Your task to perform on an android device: toggle wifi Image 0: 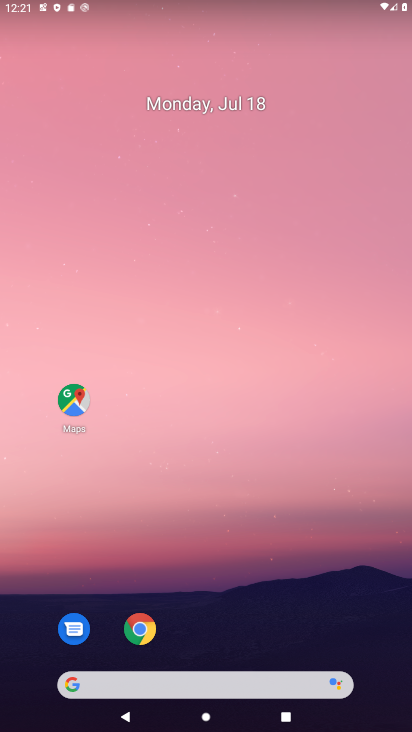
Step 0: press home button
Your task to perform on an android device: toggle wifi Image 1: 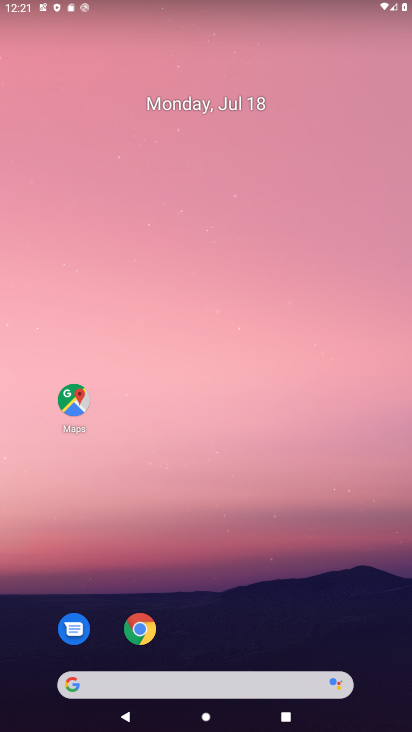
Step 1: drag from (231, 8) to (232, 544)
Your task to perform on an android device: toggle wifi Image 2: 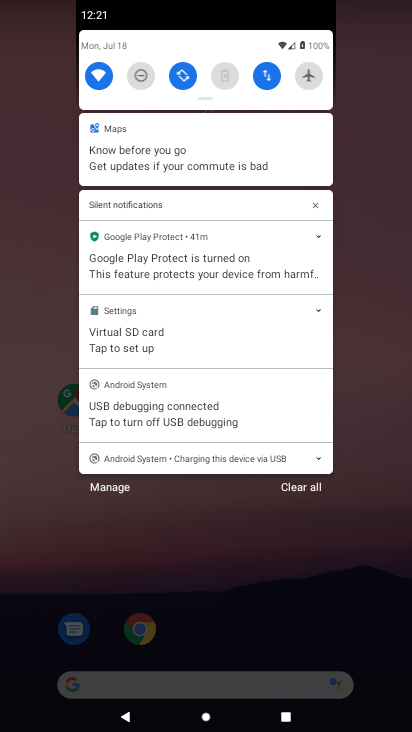
Step 2: click (98, 78)
Your task to perform on an android device: toggle wifi Image 3: 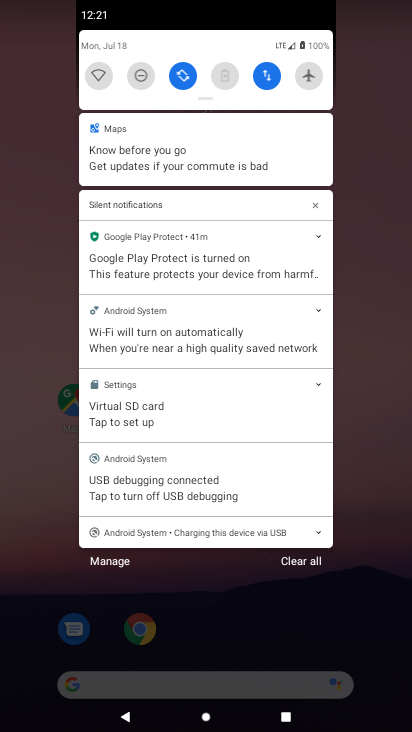
Step 3: click (91, 75)
Your task to perform on an android device: toggle wifi Image 4: 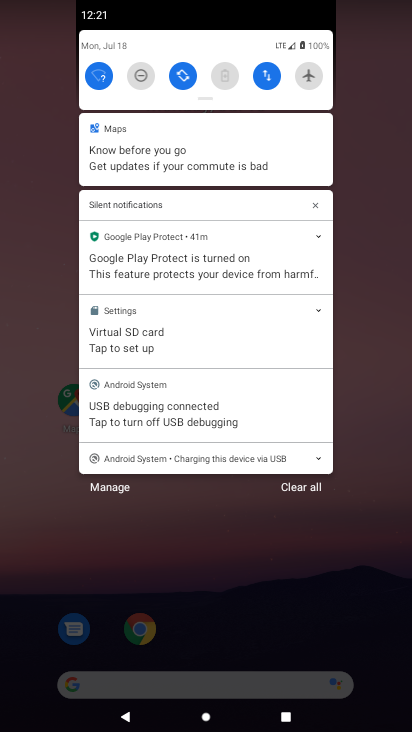
Step 4: task complete